Your task to perform on an android device: Open Amazon Image 0: 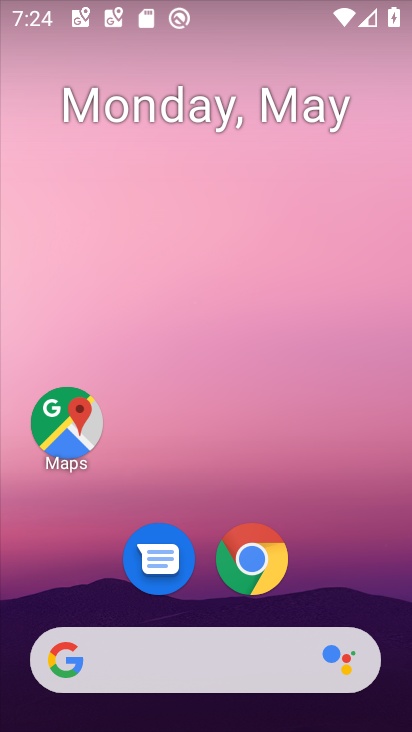
Step 0: drag from (398, 629) to (360, 346)
Your task to perform on an android device: Open Amazon Image 1: 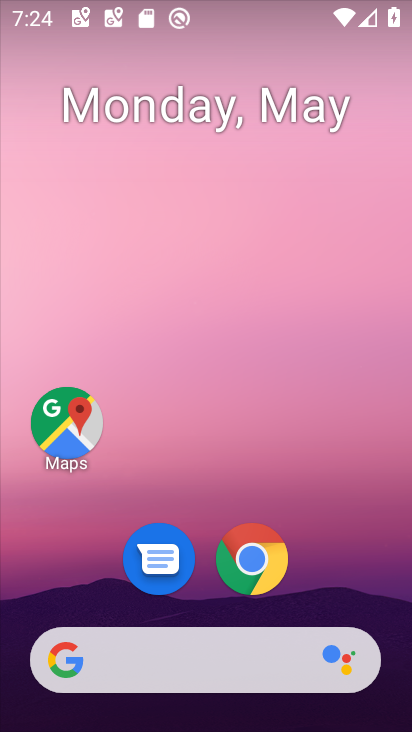
Step 1: click (251, 578)
Your task to perform on an android device: Open Amazon Image 2: 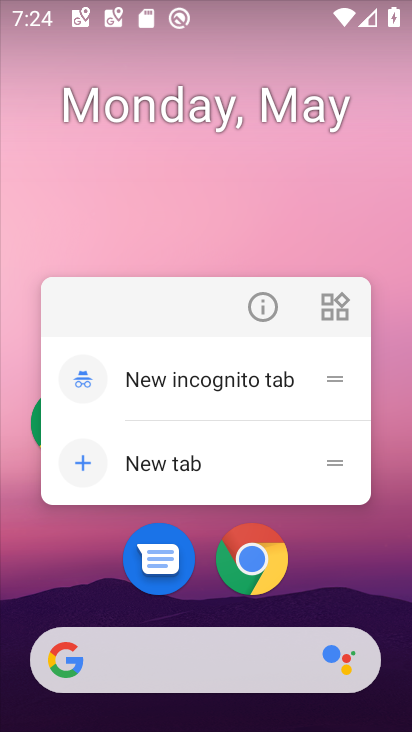
Step 2: click (251, 578)
Your task to perform on an android device: Open Amazon Image 3: 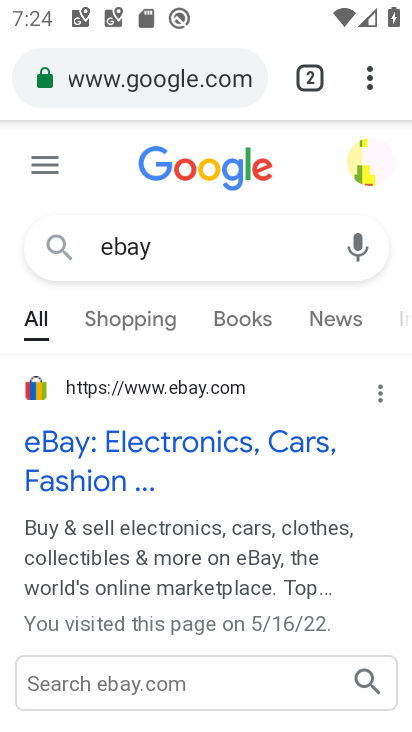
Step 3: press back button
Your task to perform on an android device: Open Amazon Image 4: 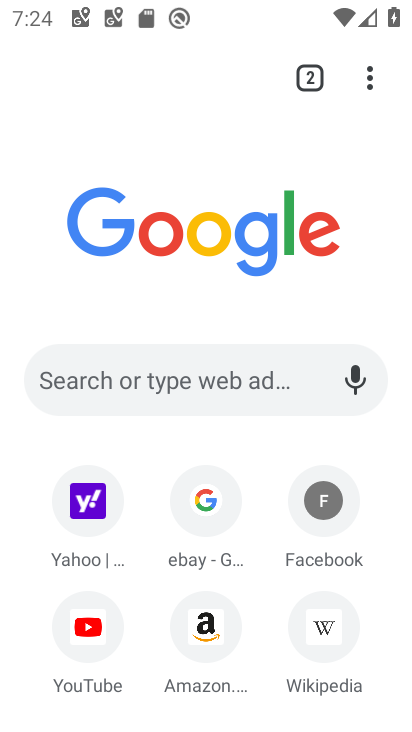
Step 4: click (213, 641)
Your task to perform on an android device: Open Amazon Image 5: 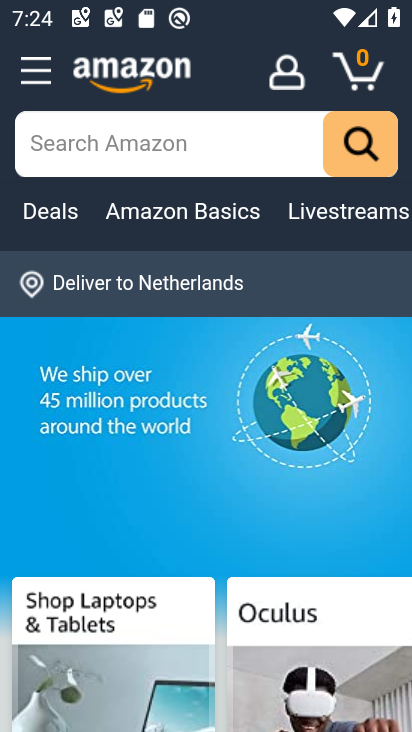
Step 5: task complete